Your task to perform on an android device: Open maps Image 0: 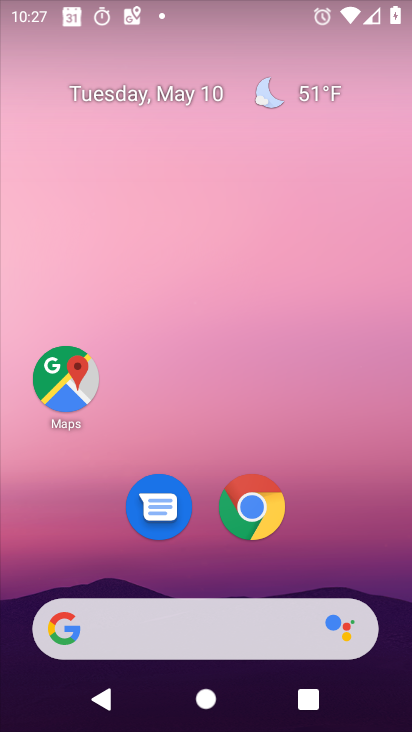
Step 0: click (65, 339)
Your task to perform on an android device: Open maps Image 1: 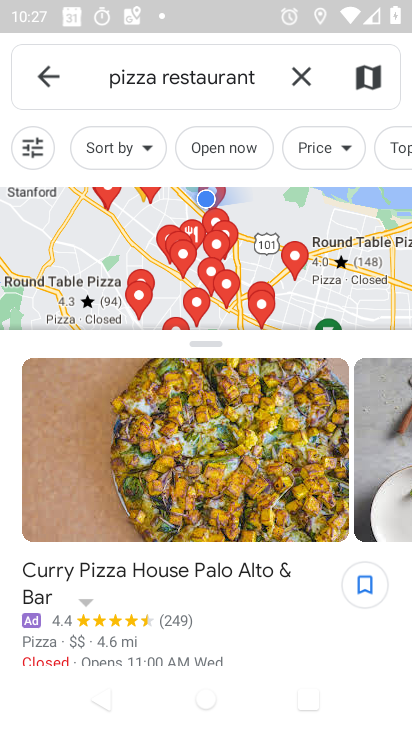
Step 1: task complete